Your task to perform on an android device: Turn off the flashlight Image 0: 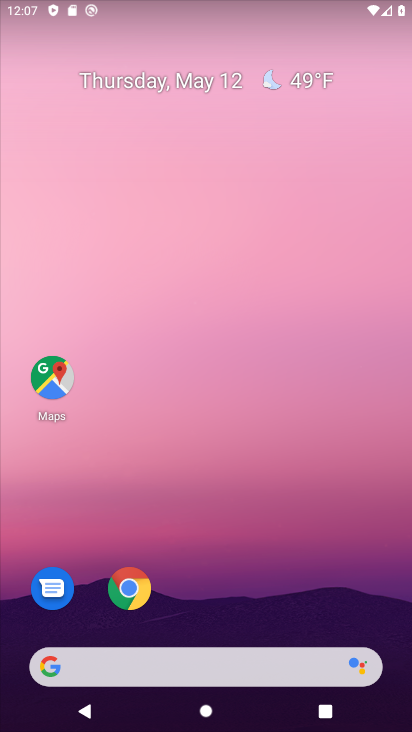
Step 0: drag from (300, 576) to (252, 108)
Your task to perform on an android device: Turn off the flashlight Image 1: 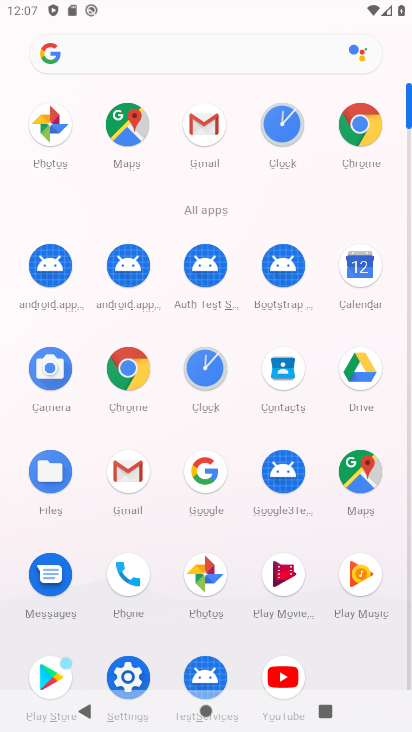
Step 1: drag from (236, 507) to (255, 78)
Your task to perform on an android device: Turn off the flashlight Image 2: 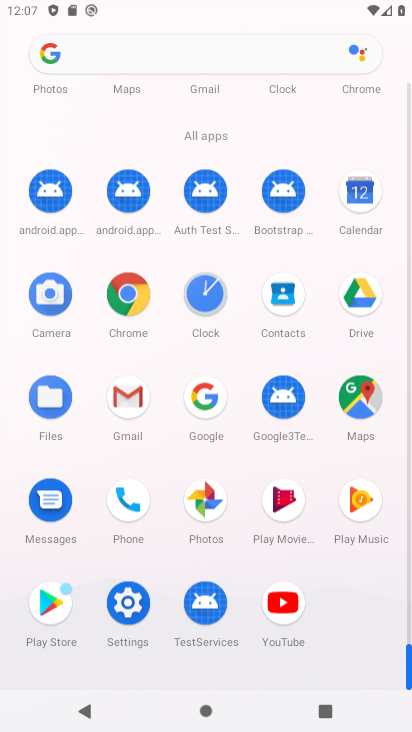
Step 2: drag from (230, 475) to (259, 154)
Your task to perform on an android device: Turn off the flashlight Image 3: 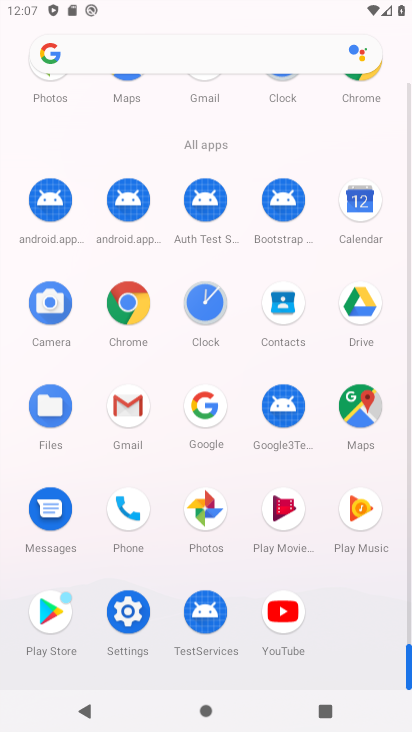
Step 3: drag from (242, 410) to (293, 82)
Your task to perform on an android device: Turn off the flashlight Image 4: 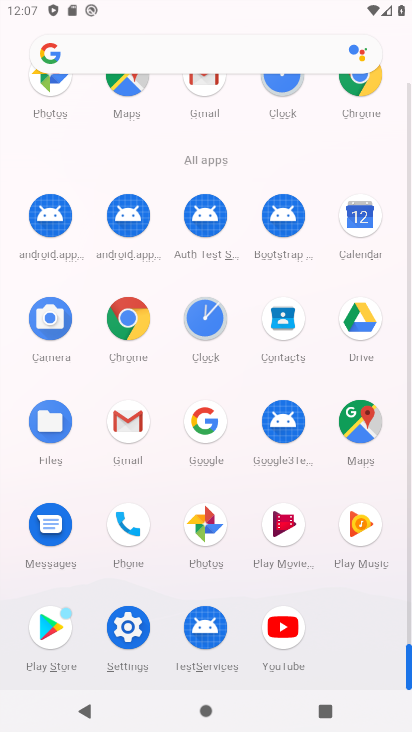
Step 4: click (298, 96)
Your task to perform on an android device: Turn off the flashlight Image 5: 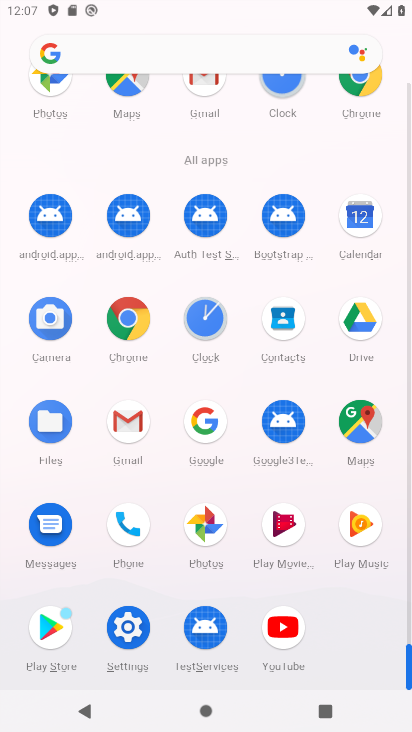
Step 5: task complete